Your task to perform on an android device: empty trash in the gmail app Image 0: 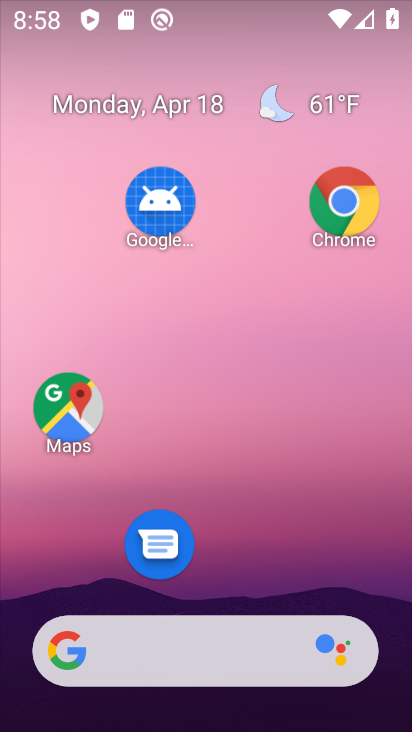
Step 0: drag from (234, 609) to (2, 365)
Your task to perform on an android device: empty trash in the gmail app Image 1: 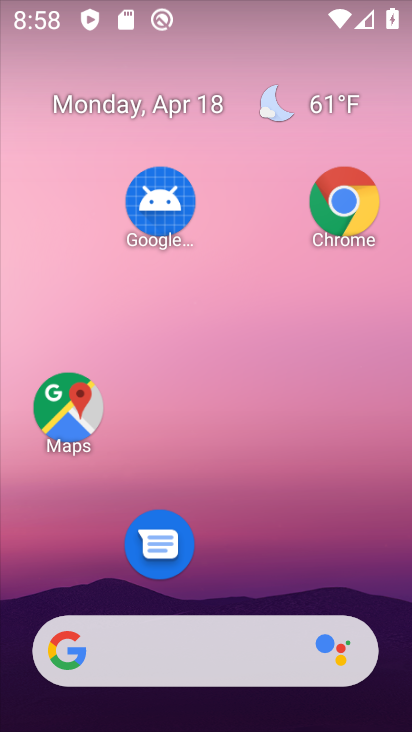
Step 1: drag from (215, 605) to (185, 27)
Your task to perform on an android device: empty trash in the gmail app Image 2: 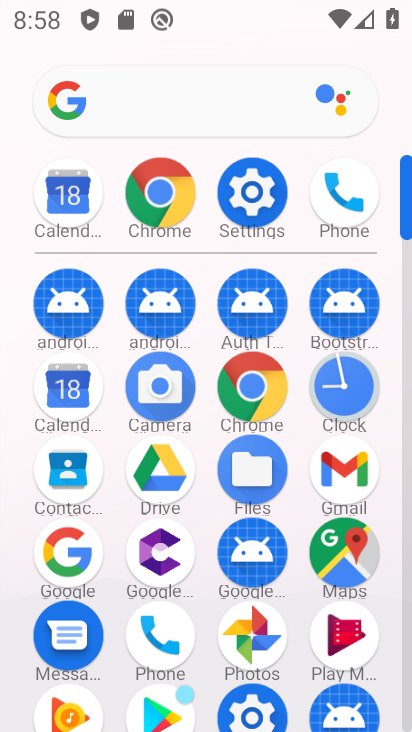
Step 2: click (348, 485)
Your task to perform on an android device: empty trash in the gmail app Image 3: 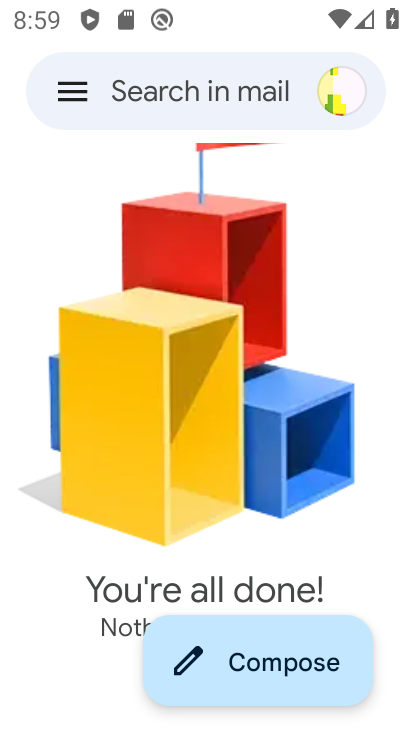
Step 3: click (76, 85)
Your task to perform on an android device: empty trash in the gmail app Image 4: 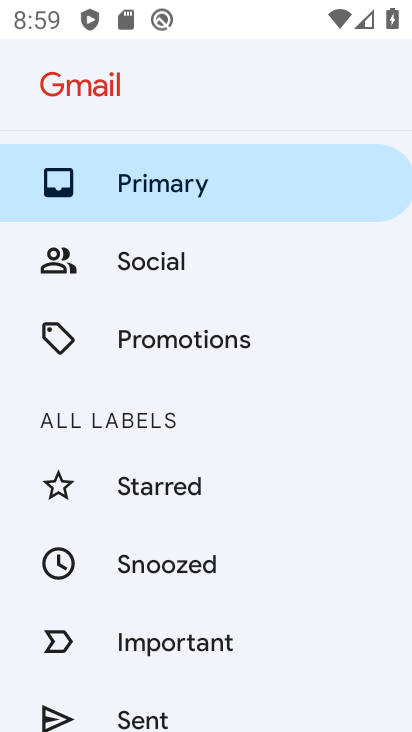
Step 4: drag from (172, 554) to (169, 138)
Your task to perform on an android device: empty trash in the gmail app Image 5: 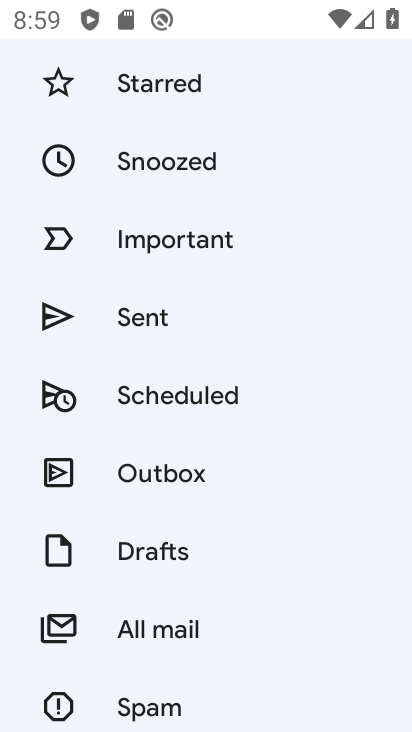
Step 5: drag from (147, 590) to (128, 218)
Your task to perform on an android device: empty trash in the gmail app Image 6: 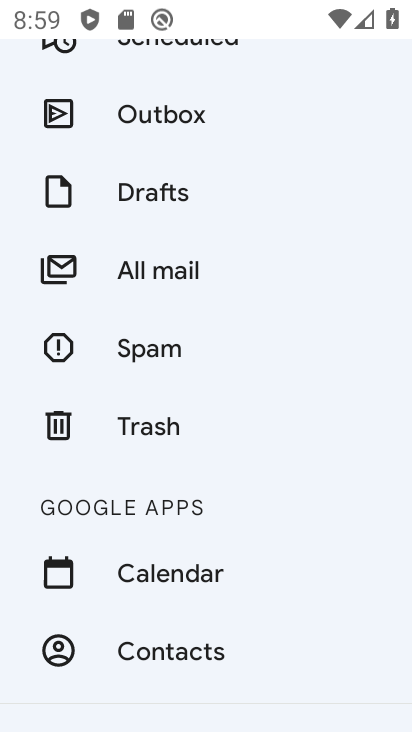
Step 6: click (135, 408)
Your task to perform on an android device: empty trash in the gmail app Image 7: 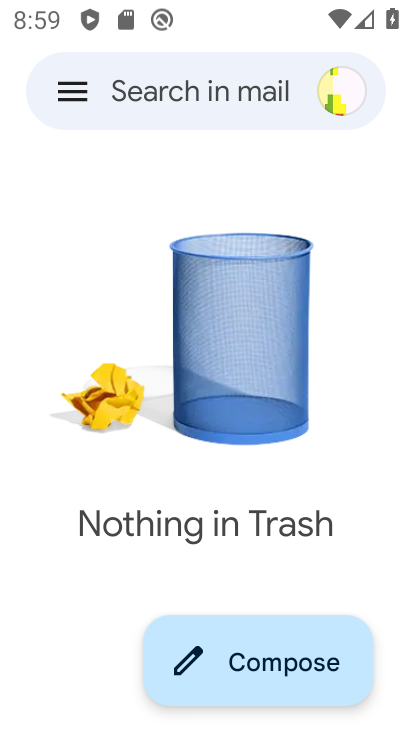
Step 7: task complete